Your task to perform on an android device: open app "Google Home" (install if not already installed) Image 0: 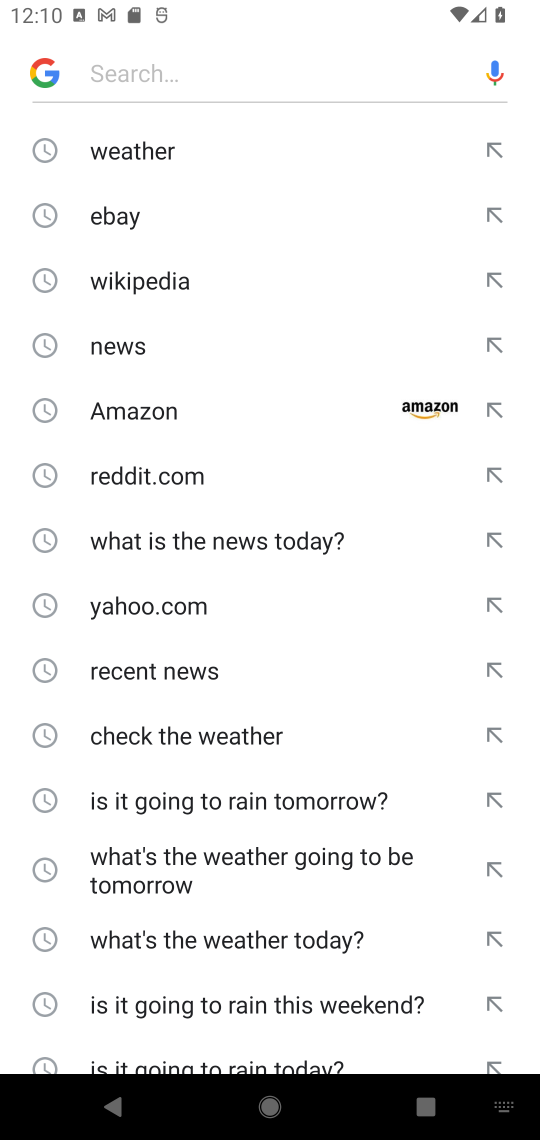
Step 0: press home button
Your task to perform on an android device: open app "Google Home" (install if not already installed) Image 1: 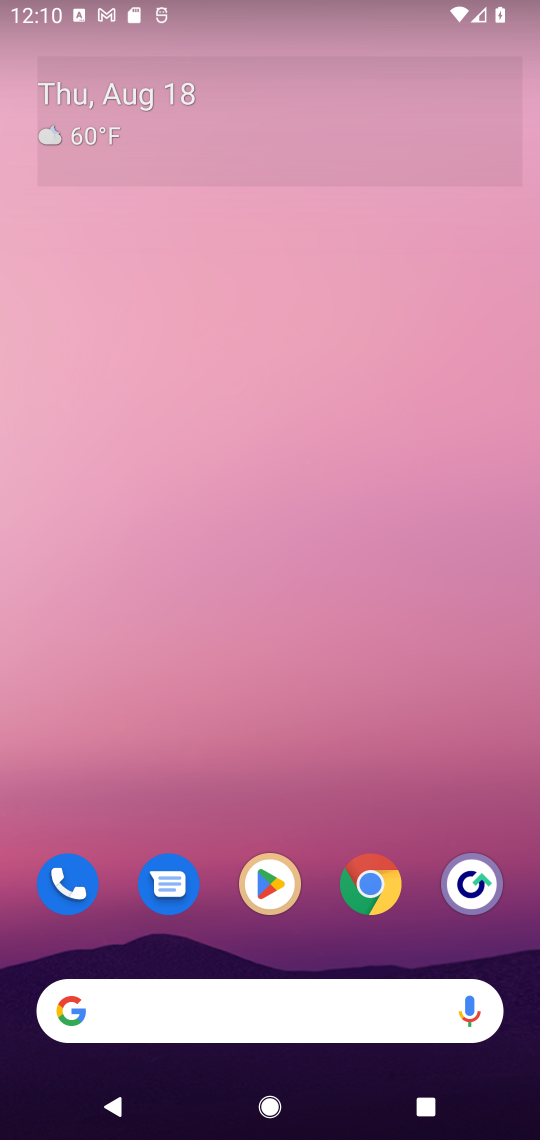
Step 1: drag from (200, 998) to (402, 203)
Your task to perform on an android device: open app "Google Home" (install if not already installed) Image 2: 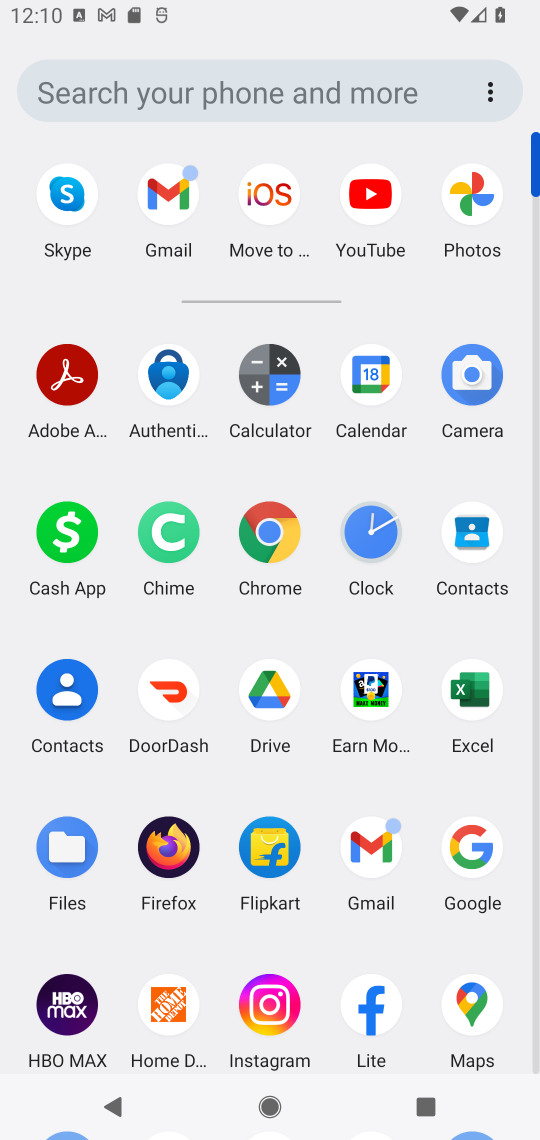
Step 2: drag from (218, 938) to (221, 394)
Your task to perform on an android device: open app "Google Home" (install if not already installed) Image 3: 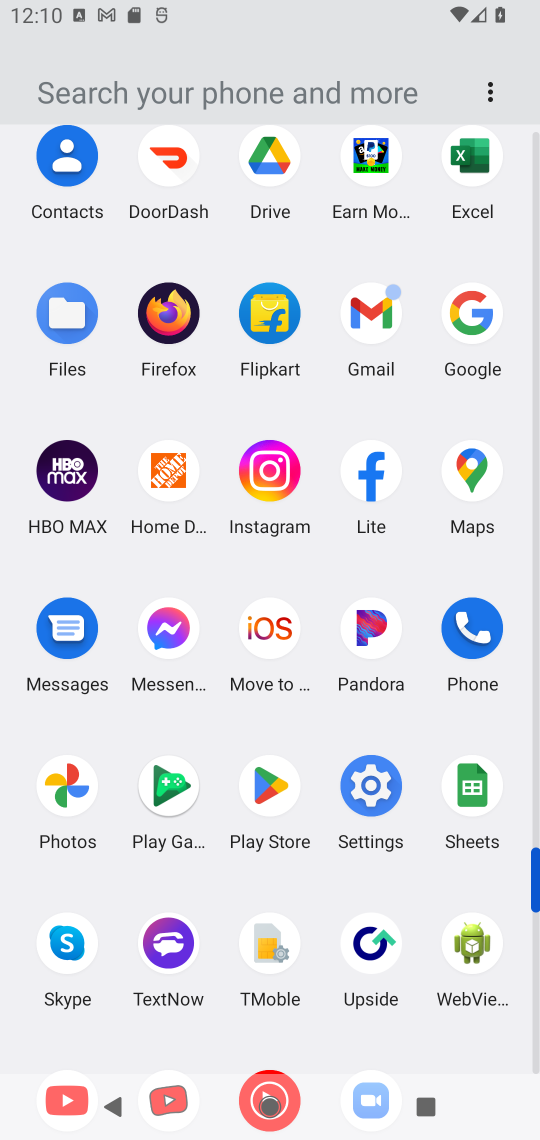
Step 3: click (276, 790)
Your task to perform on an android device: open app "Google Home" (install if not already installed) Image 4: 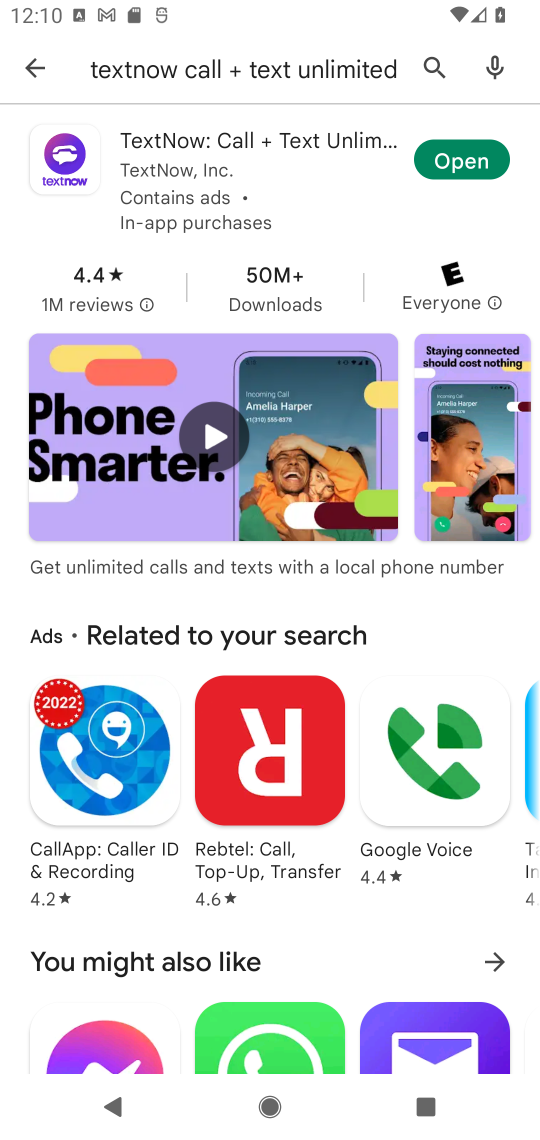
Step 4: press back button
Your task to perform on an android device: open app "Google Home" (install if not already installed) Image 5: 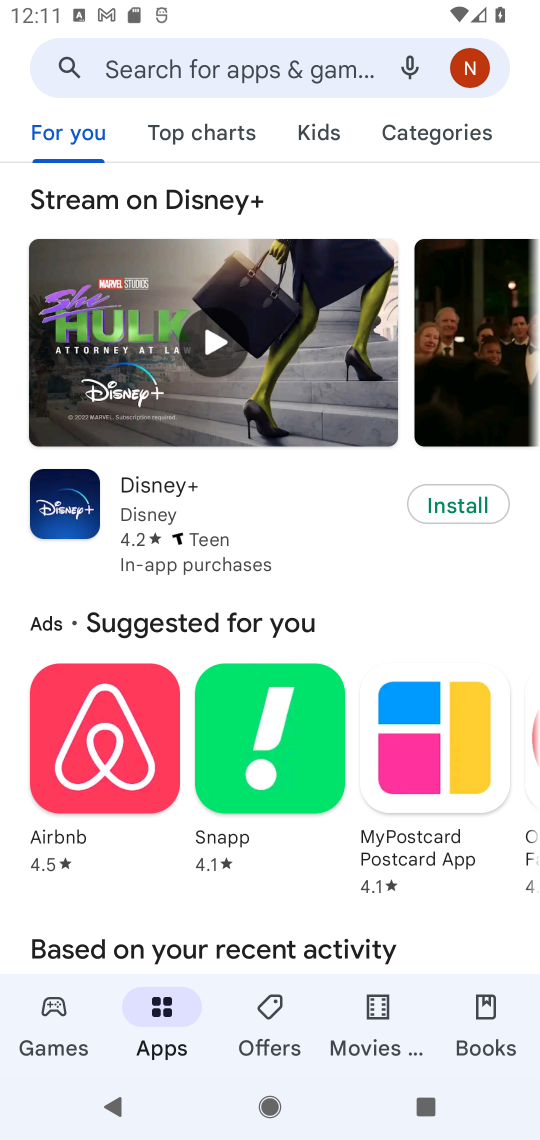
Step 5: click (294, 68)
Your task to perform on an android device: open app "Google Home" (install if not already installed) Image 6: 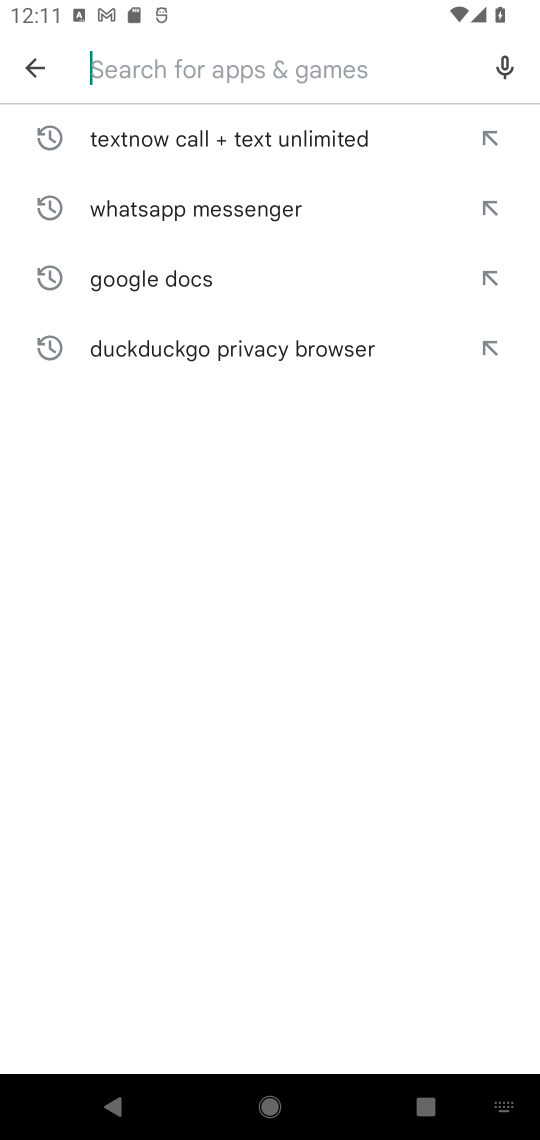
Step 6: type "Google Home"
Your task to perform on an android device: open app "Google Home" (install if not already installed) Image 7: 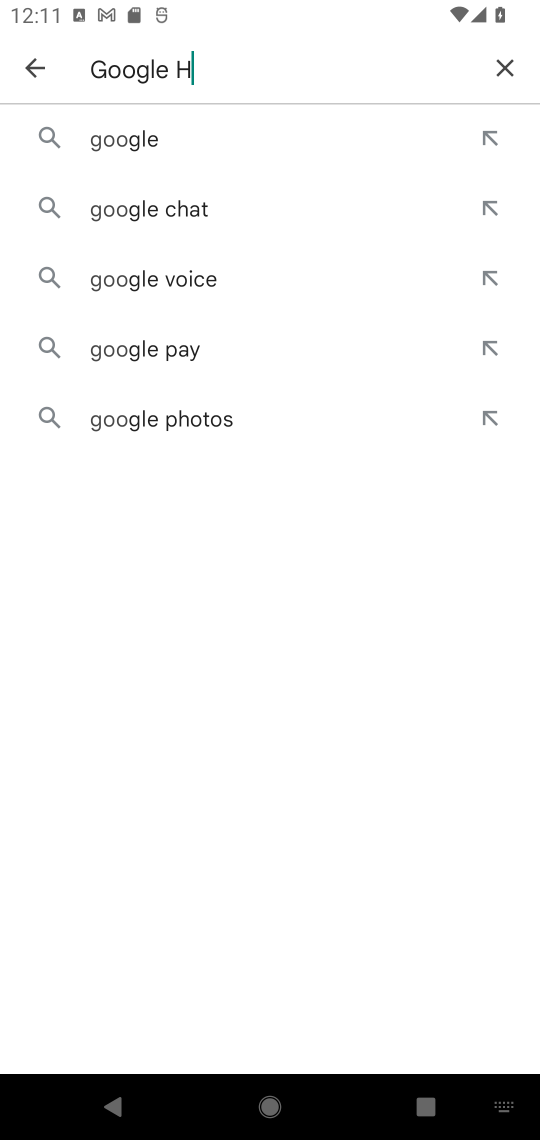
Step 7: type ""
Your task to perform on an android device: open app "Google Home" (install if not already installed) Image 8: 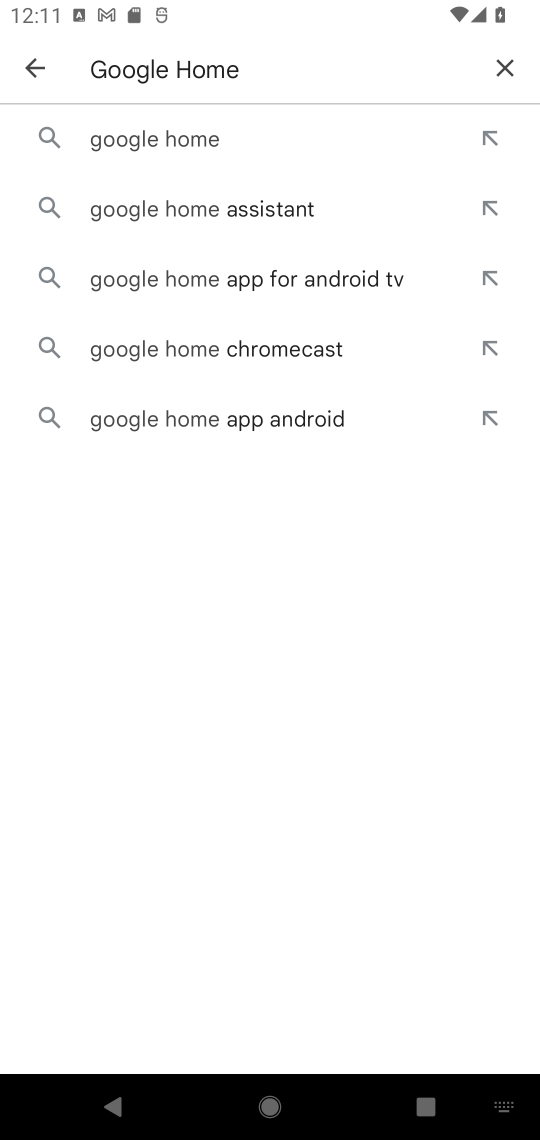
Step 8: click (172, 142)
Your task to perform on an android device: open app "Google Home" (install if not already installed) Image 9: 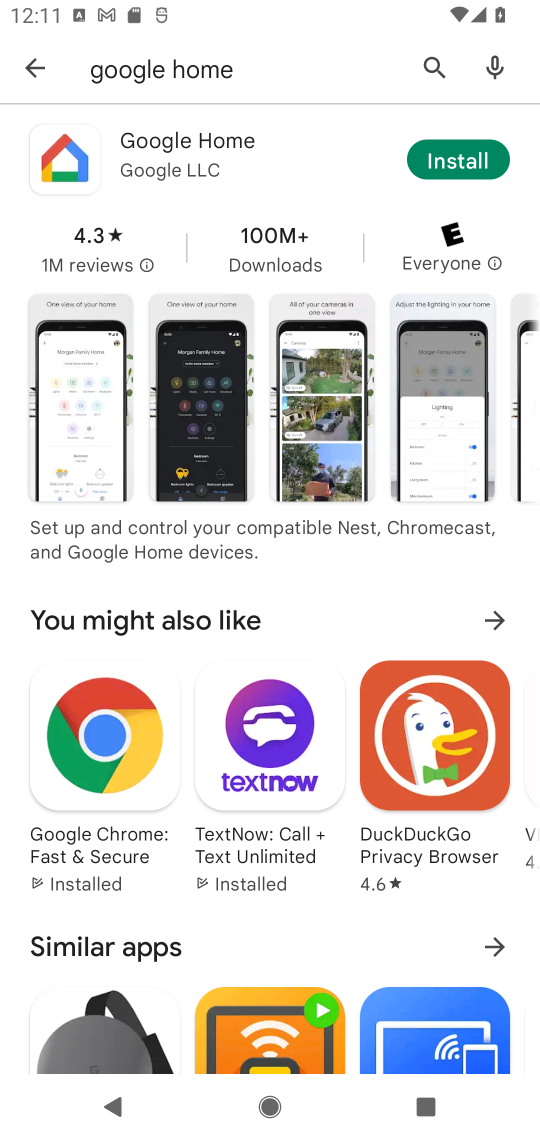
Step 9: click (453, 168)
Your task to perform on an android device: open app "Google Home" (install if not already installed) Image 10: 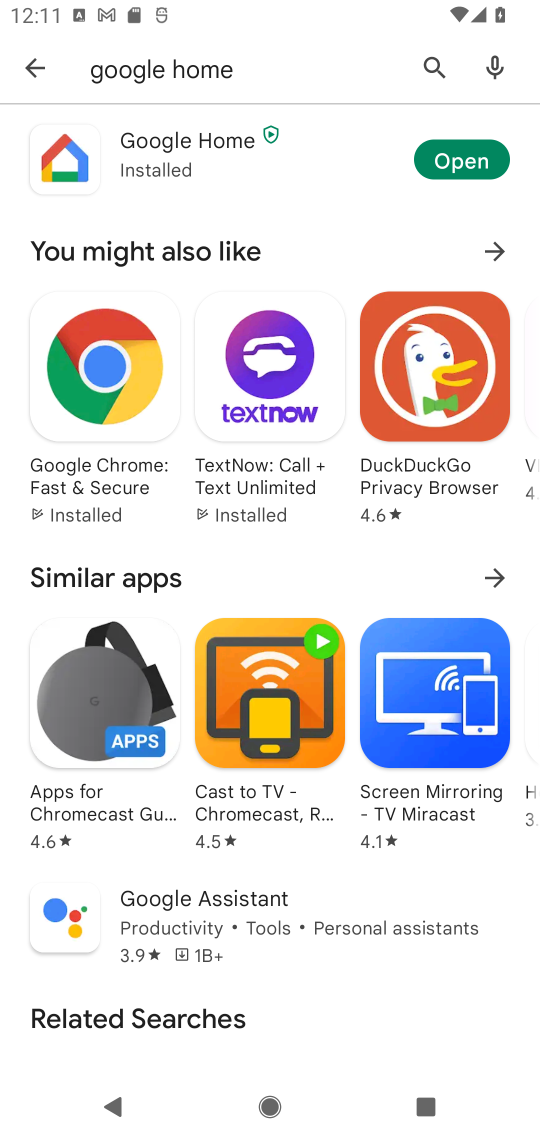
Step 10: click (481, 162)
Your task to perform on an android device: open app "Google Home" (install if not already installed) Image 11: 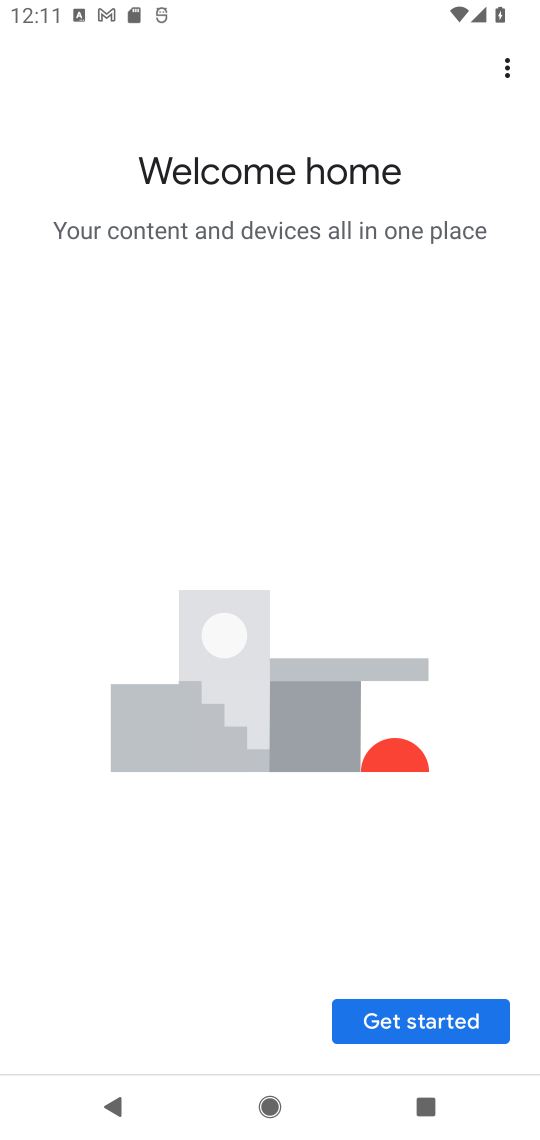
Step 11: task complete